Your task to perform on an android device: turn on improve location accuracy Image 0: 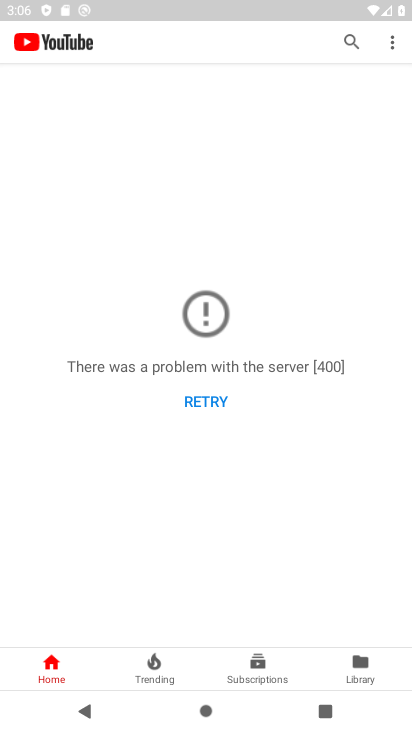
Step 0: press home button
Your task to perform on an android device: turn on improve location accuracy Image 1: 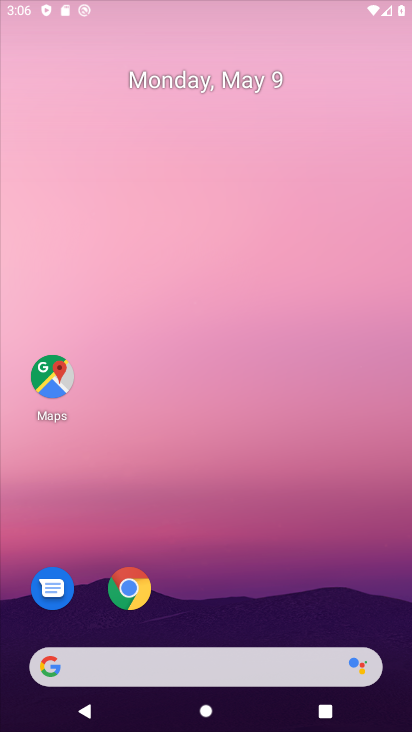
Step 1: drag from (214, 559) to (250, 103)
Your task to perform on an android device: turn on improve location accuracy Image 2: 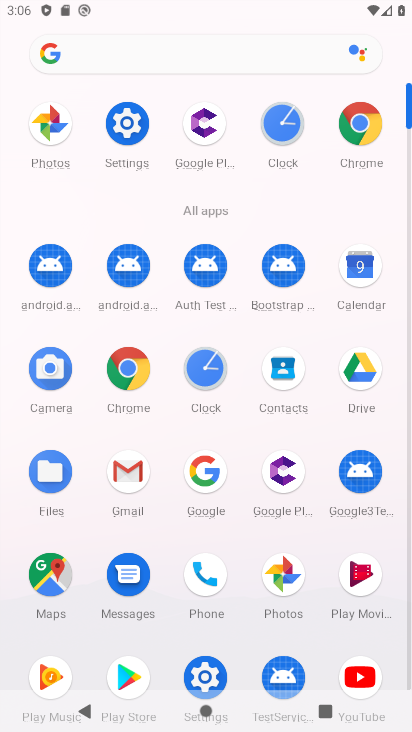
Step 2: click (134, 101)
Your task to perform on an android device: turn on improve location accuracy Image 3: 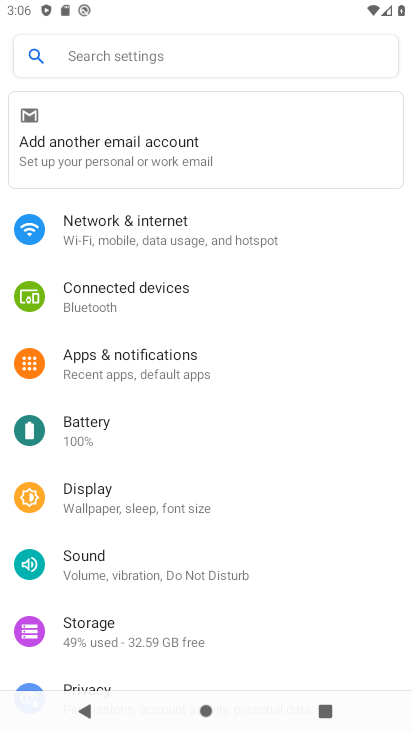
Step 3: drag from (185, 655) to (245, 226)
Your task to perform on an android device: turn on improve location accuracy Image 4: 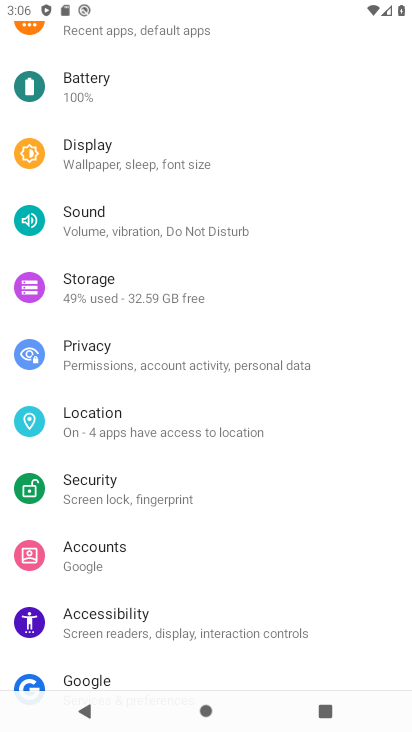
Step 4: click (59, 435)
Your task to perform on an android device: turn on improve location accuracy Image 5: 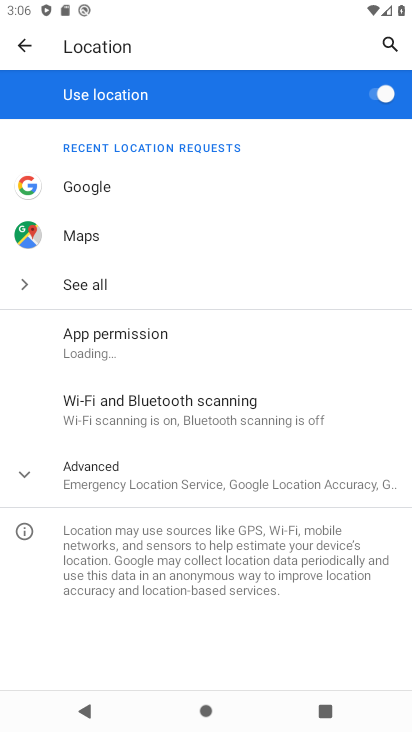
Step 5: click (116, 479)
Your task to perform on an android device: turn on improve location accuracy Image 6: 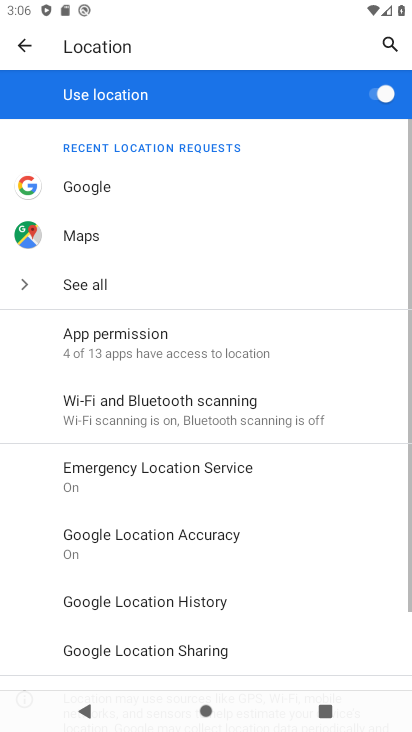
Step 6: click (130, 539)
Your task to perform on an android device: turn on improve location accuracy Image 7: 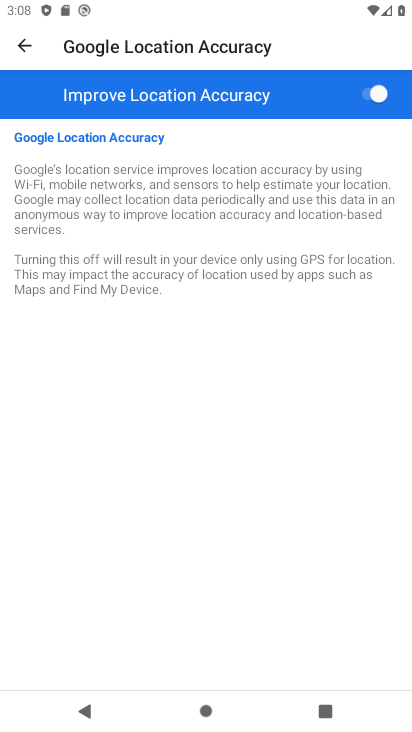
Step 7: task complete